Your task to perform on an android device: Open Chrome and go to settings Image 0: 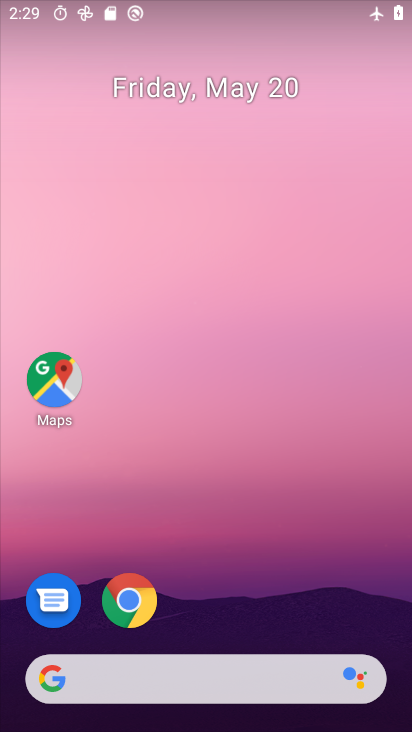
Step 0: click (127, 602)
Your task to perform on an android device: Open Chrome and go to settings Image 1: 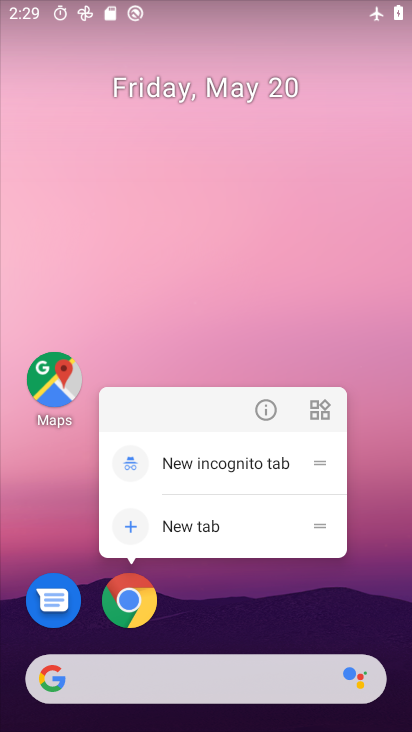
Step 1: click (140, 594)
Your task to perform on an android device: Open Chrome and go to settings Image 2: 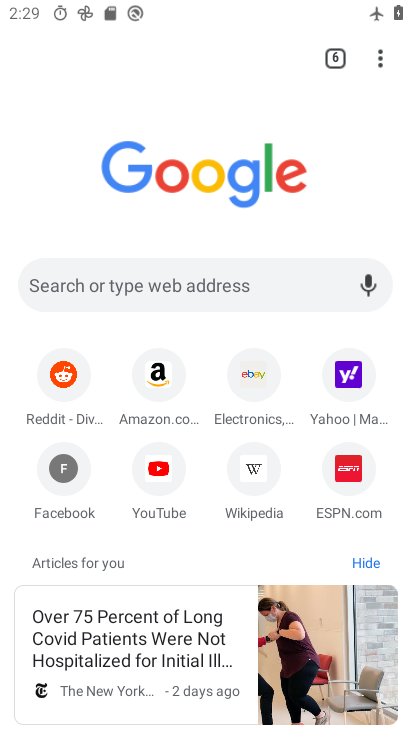
Step 2: click (385, 56)
Your task to perform on an android device: Open Chrome and go to settings Image 3: 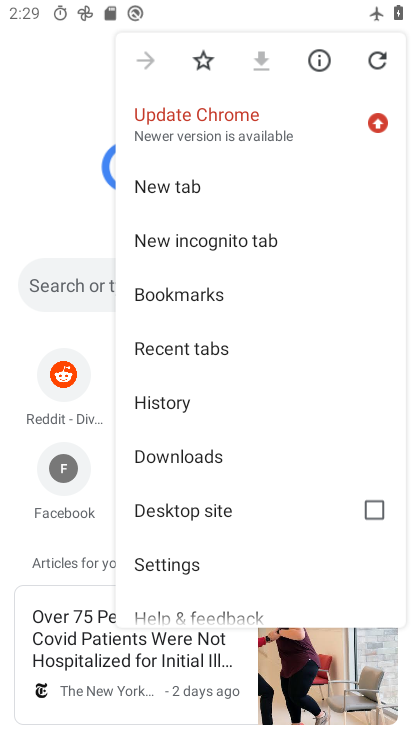
Step 3: click (201, 563)
Your task to perform on an android device: Open Chrome and go to settings Image 4: 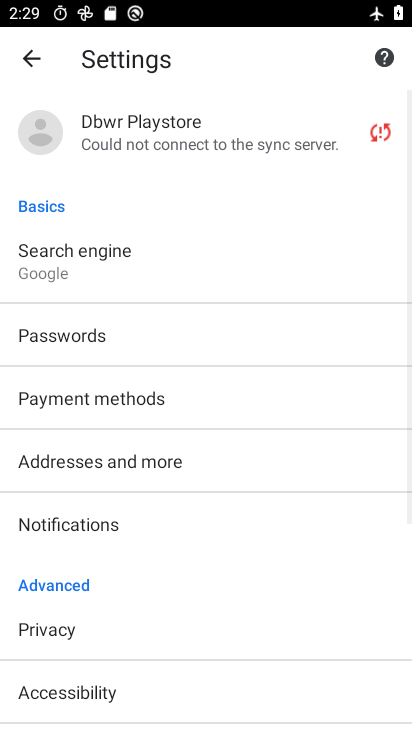
Step 4: task complete